Your task to perform on an android device: Open Google Maps Image 0: 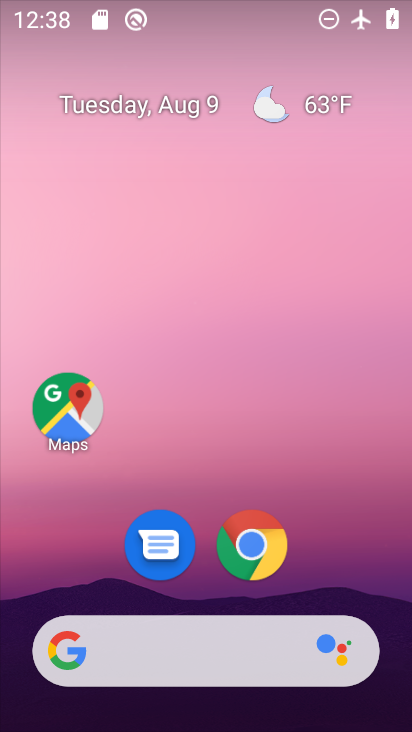
Step 0: click (68, 410)
Your task to perform on an android device: Open Google Maps Image 1: 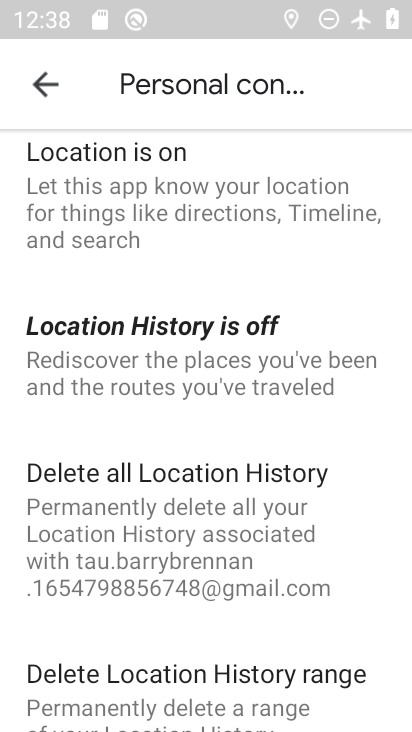
Step 1: task complete